Your task to perform on an android device: set the timer Image 0: 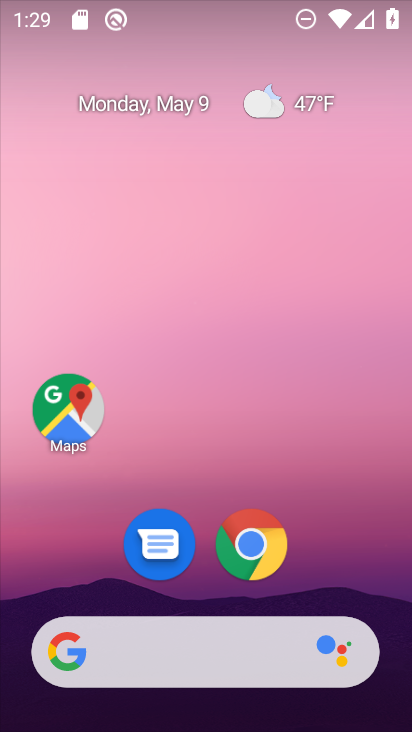
Step 0: drag from (351, 505) to (283, 82)
Your task to perform on an android device: set the timer Image 1: 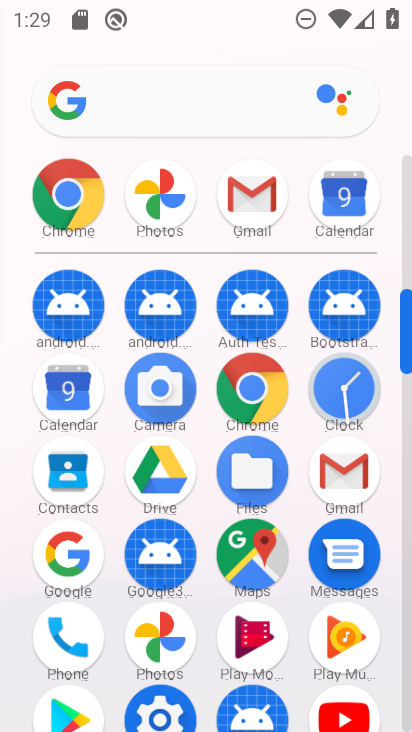
Step 1: click (345, 395)
Your task to perform on an android device: set the timer Image 2: 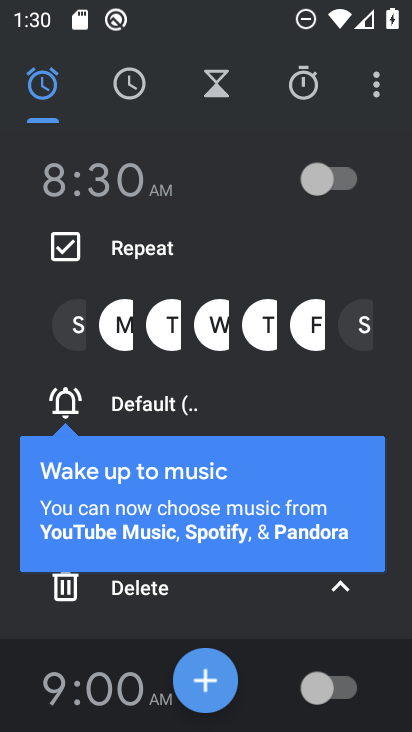
Step 2: click (209, 95)
Your task to perform on an android device: set the timer Image 3: 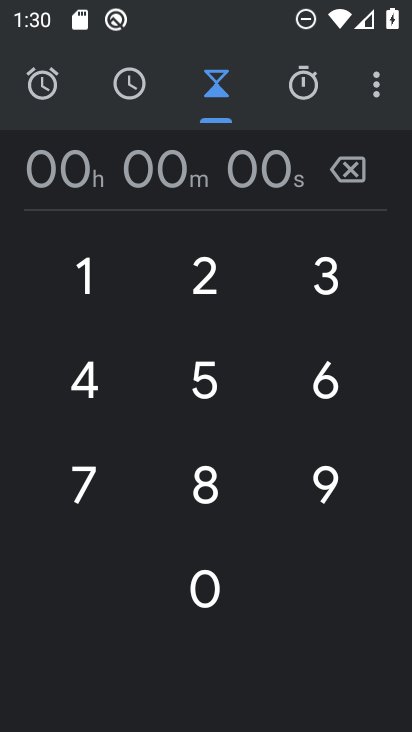
Step 3: click (193, 275)
Your task to perform on an android device: set the timer Image 4: 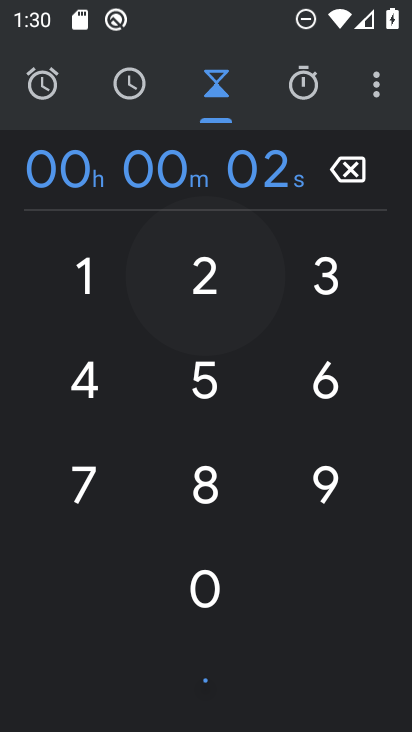
Step 4: click (92, 395)
Your task to perform on an android device: set the timer Image 5: 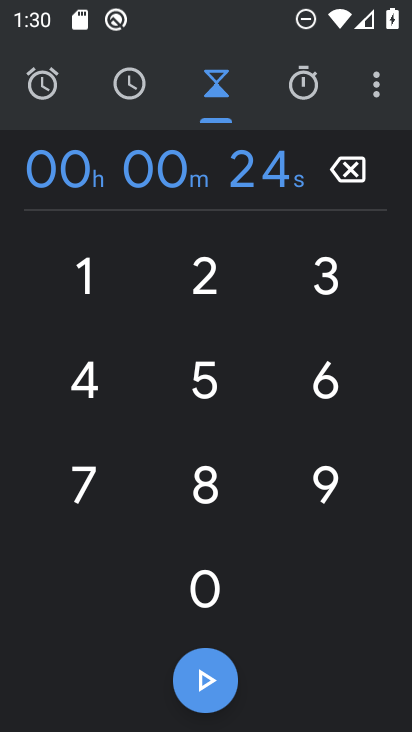
Step 5: click (196, 291)
Your task to perform on an android device: set the timer Image 6: 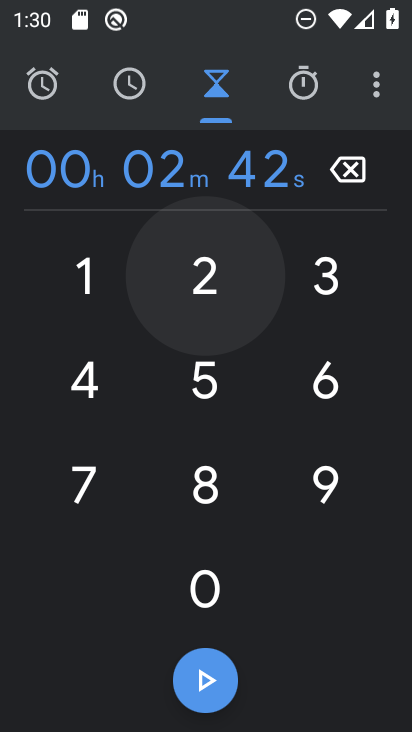
Step 6: click (85, 389)
Your task to perform on an android device: set the timer Image 7: 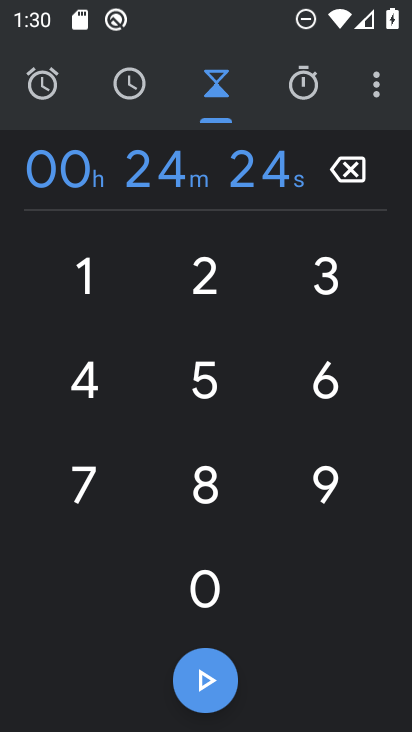
Step 7: click (189, 282)
Your task to perform on an android device: set the timer Image 8: 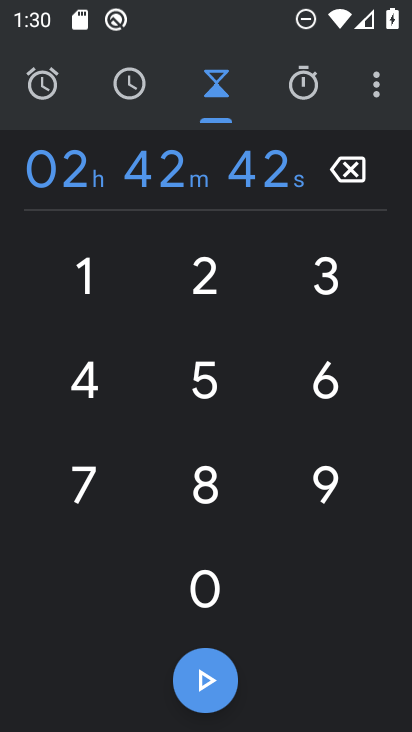
Step 8: click (80, 399)
Your task to perform on an android device: set the timer Image 9: 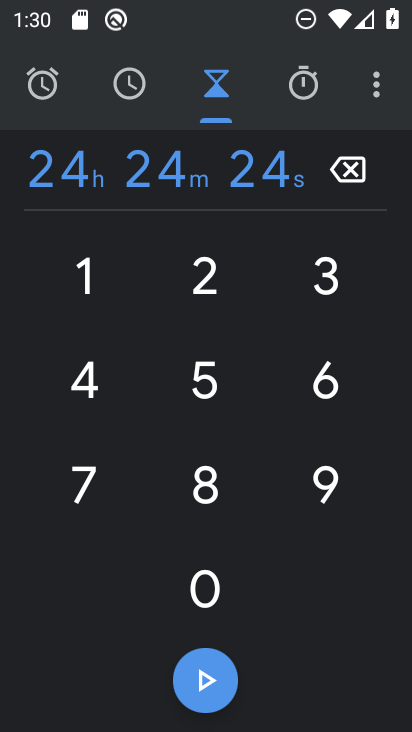
Step 9: click (224, 685)
Your task to perform on an android device: set the timer Image 10: 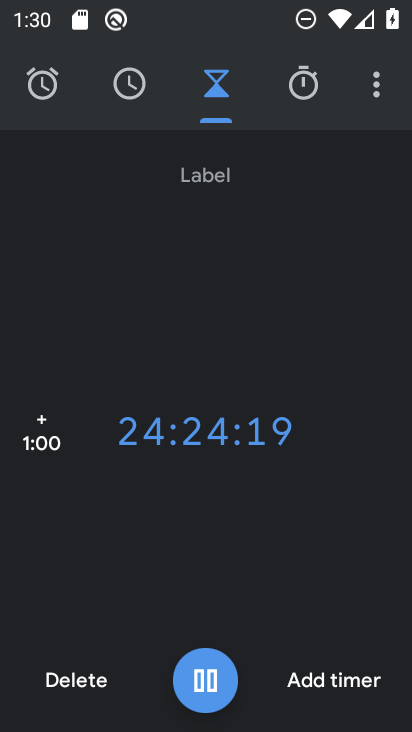
Step 10: task complete